Your task to perform on an android device: show emergency info Image 0: 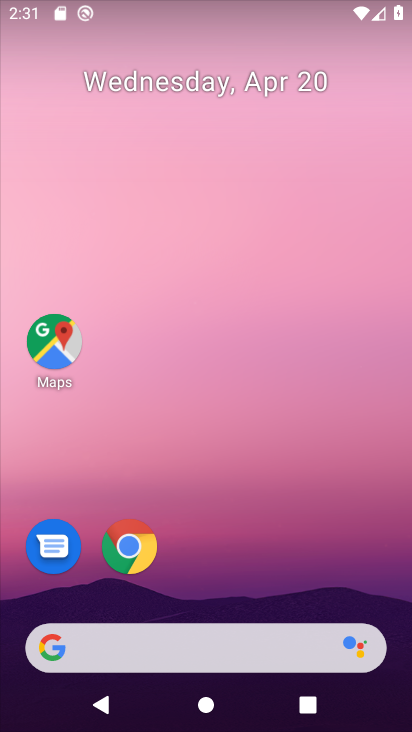
Step 0: click (314, 310)
Your task to perform on an android device: show emergency info Image 1: 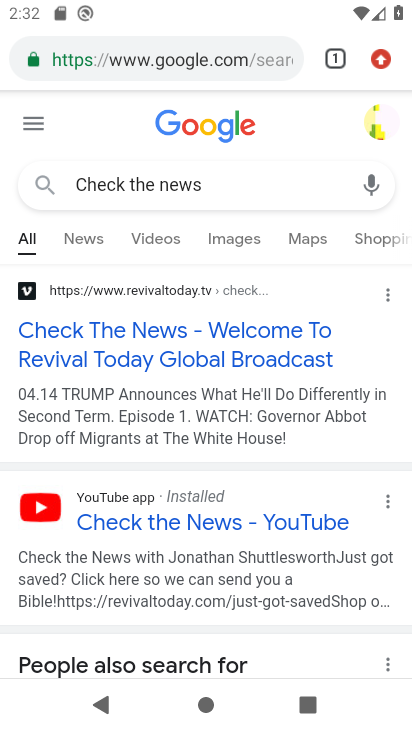
Step 1: press home button
Your task to perform on an android device: show emergency info Image 2: 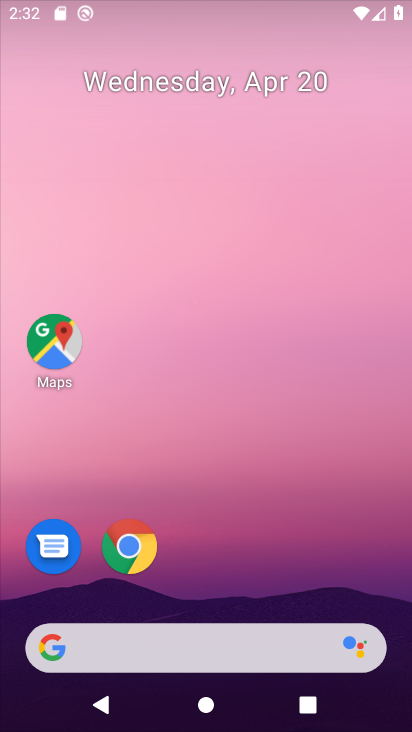
Step 2: drag from (230, 483) to (259, 216)
Your task to perform on an android device: show emergency info Image 3: 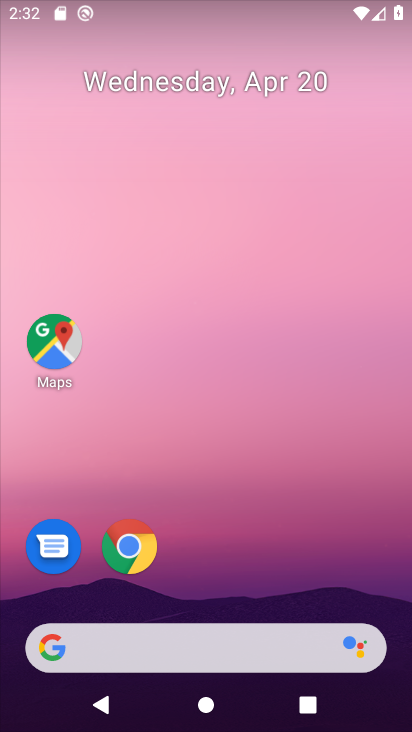
Step 3: drag from (240, 503) to (314, 111)
Your task to perform on an android device: show emergency info Image 4: 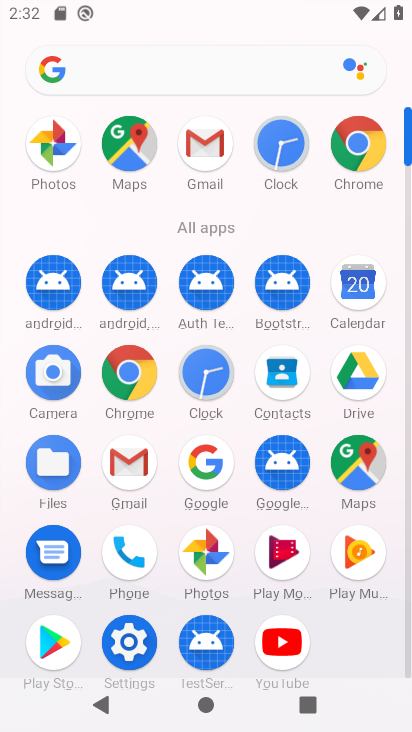
Step 4: click (133, 634)
Your task to perform on an android device: show emergency info Image 5: 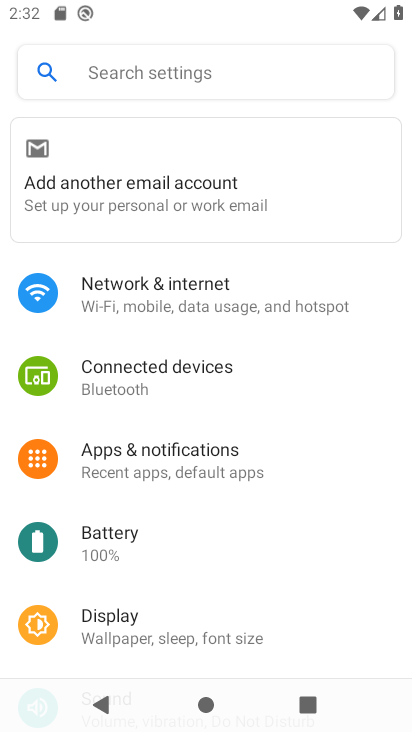
Step 5: drag from (262, 625) to (300, 127)
Your task to perform on an android device: show emergency info Image 6: 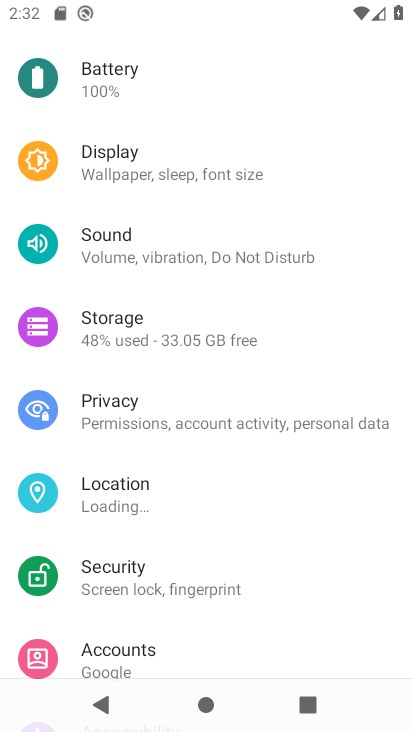
Step 6: drag from (255, 562) to (320, 74)
Your task to perform on an android device: show emergency info Image 7: 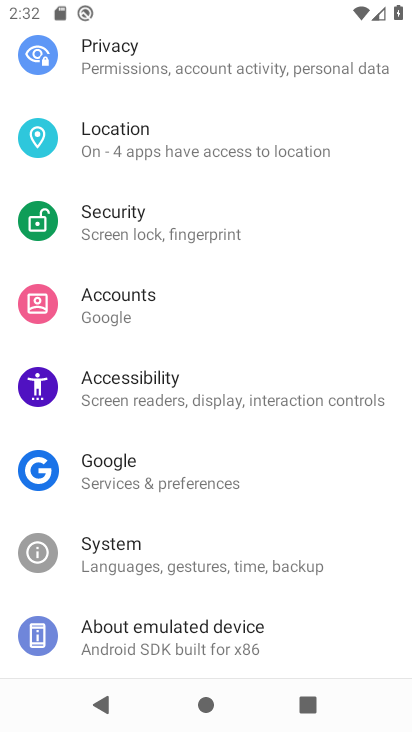
Step 7: drag from (239, 622) to (300, 223)
Your task to perform on an android device: show emergency info Image 8: 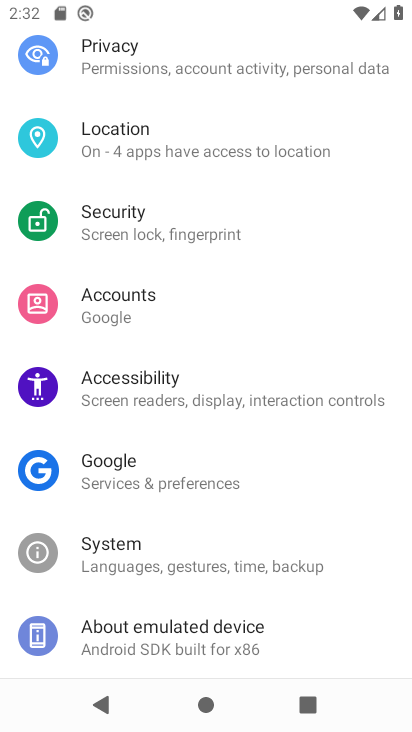
Step 8: click (207, 616)
Your task to perform on an android device: show emergency info Image 9: 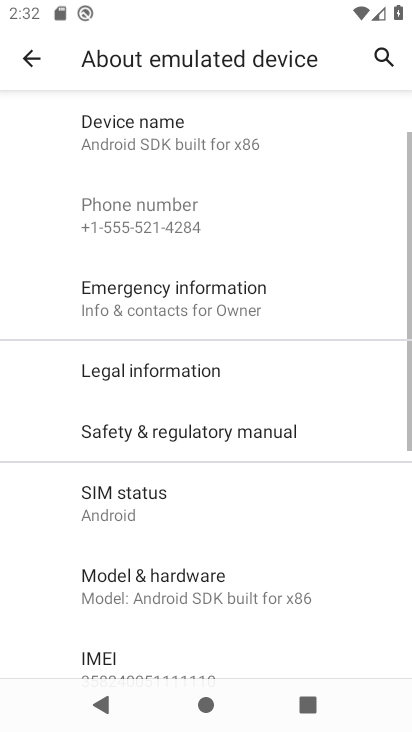
Step 9: click (192, 298)
Your task to perform on an android device: show emergency info Image 10: 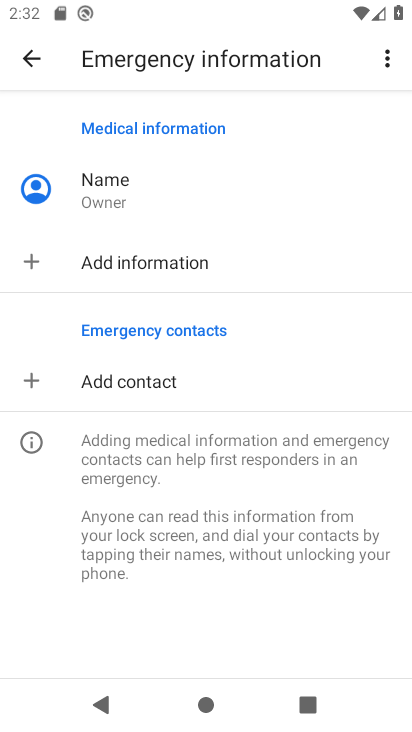
Step 10: task complete